Your task to perform on an android device: Check the news Image 0: 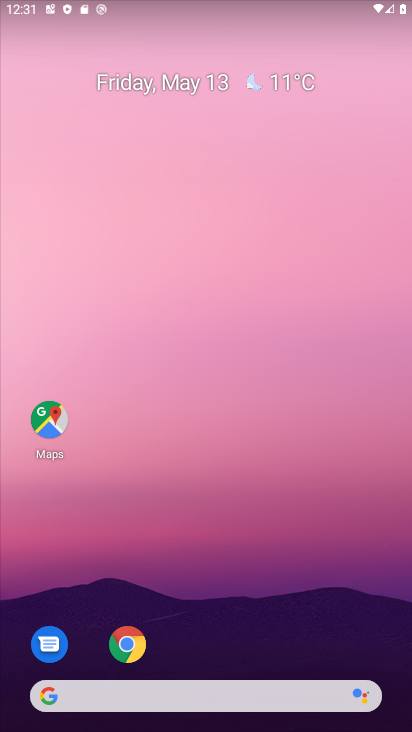
Step 0: drag from (1, 243) to (360, 257)
Your task to perform on an android device: Check the news Image 1: 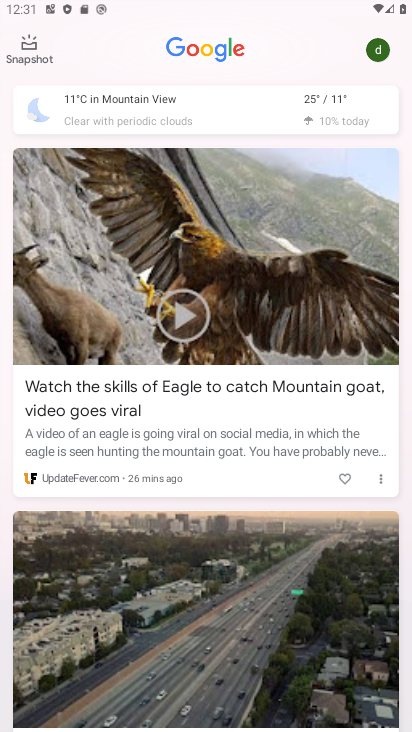
Step 1: task complete